Your task to perform on an android device: change notification settings in the gmail app Image 0: 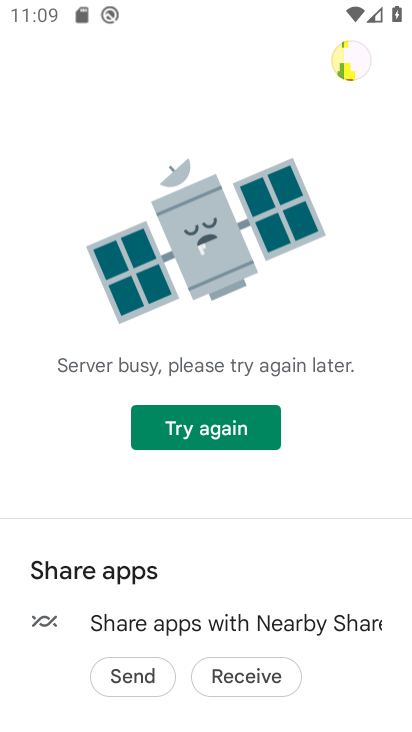
Step 0: press home button
Your task to perform on an android device: change notification settings in the gmail app Image 1: 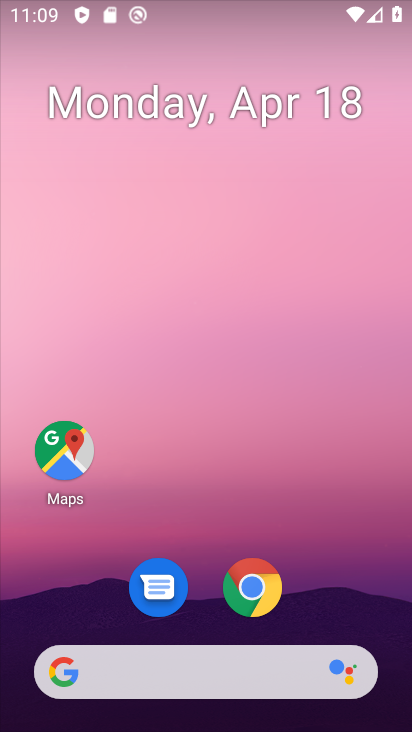
Step 1: drag from (316, 504) to (335, 107)
Your task to perform on an android device: change notification settings in the gmail app Image 2: 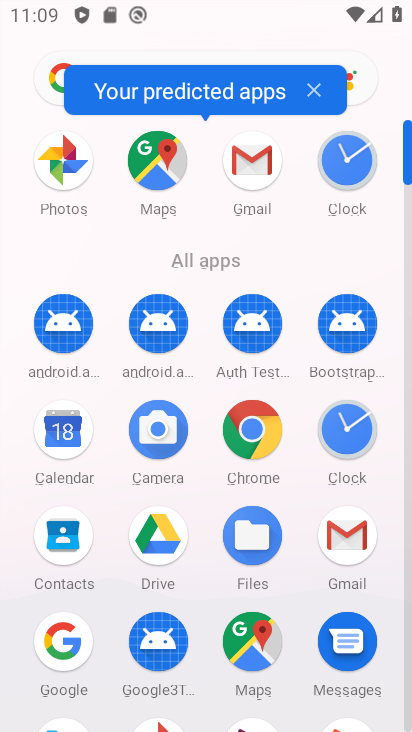
Step 2: click (346, 537)
Your task to perform on an android device: change notification settings in the gmail app Image 3: 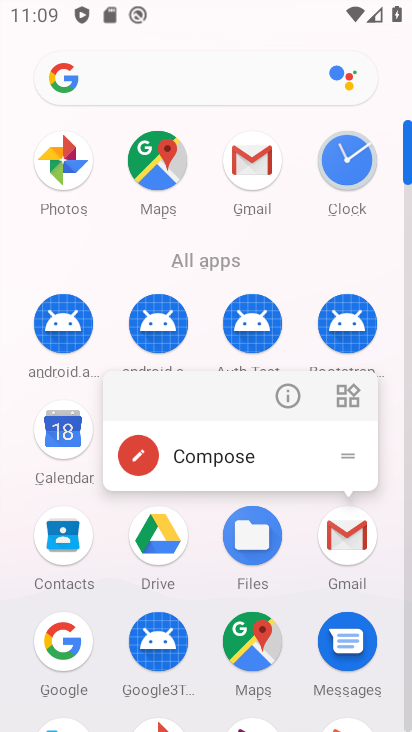
Step 3: click (289, 389)
Your task to perform on an android device: change notification settings in the gmail app Image 4: 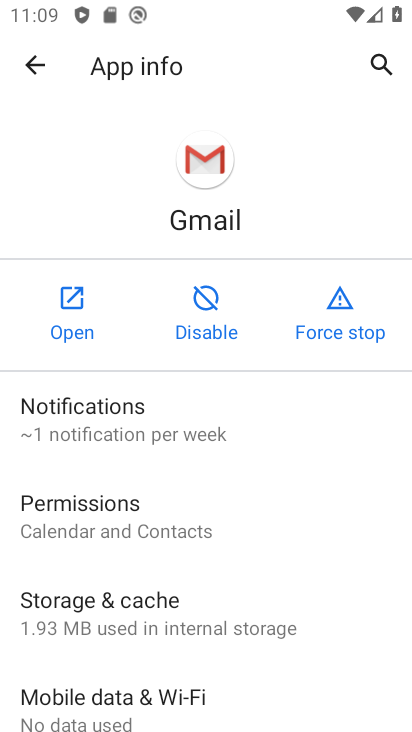
Step 4: click (142, 407)
Your task to perform on an android device: change notification settings in the gmail app Image 5: 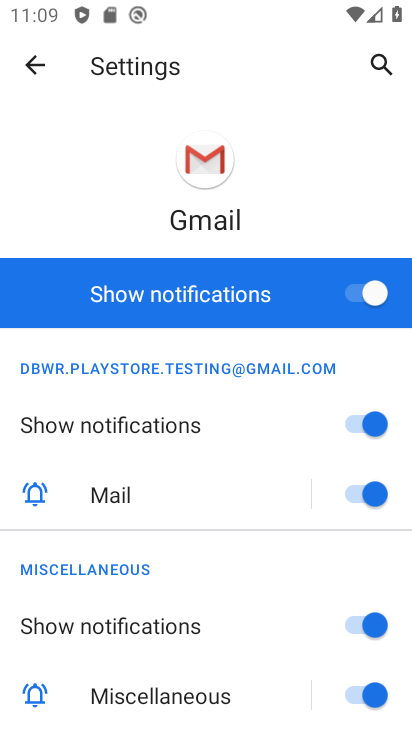
Step 5: click (355, 291)
Your task to perform on an android device: change notification settings in the gmail app Image 6: 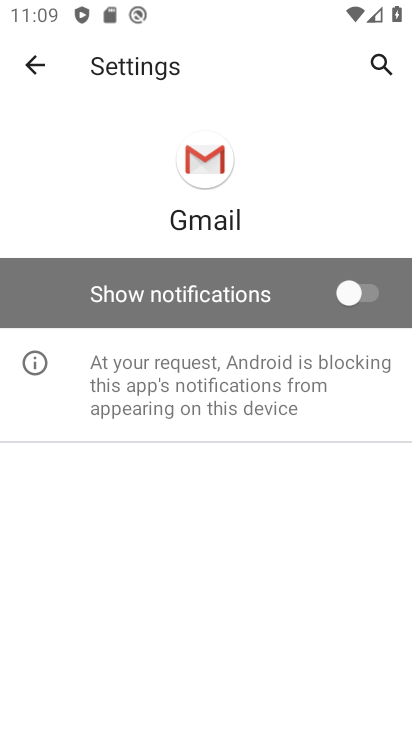
Step 6: task complete